Your task to perform on an android device: Open calendar and show me the fourth week of next month Image 0: 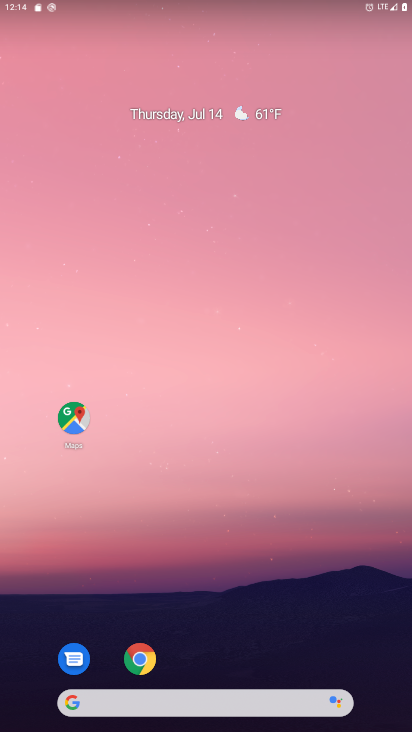
Step 0: drag from (225, 669) to (230, 59)
Your task to perform on an android device: Open calendar and show me the fourth week of next month Image 1: 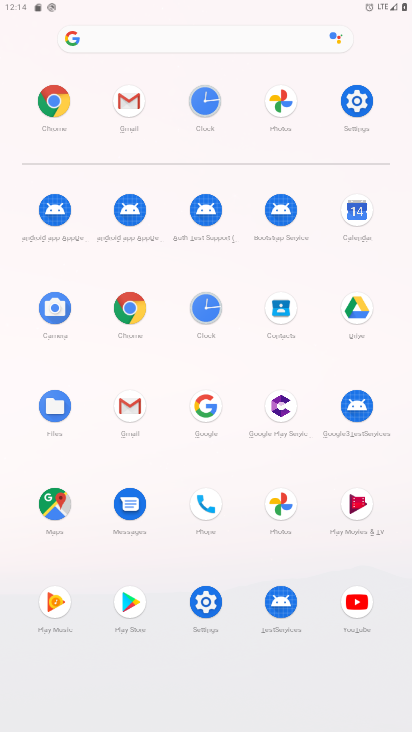
Step 1: click (352, 210)
Your task to perform on an android device: Open calendar and show me the fourth week of next month Image 2: 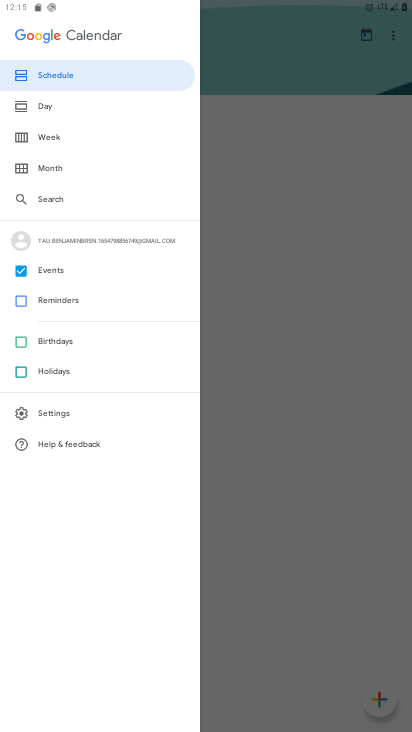
Step 2: click (45, 139)
Your task to perform on an android device: Open calendar and show me the fourth week of next month Image 3: 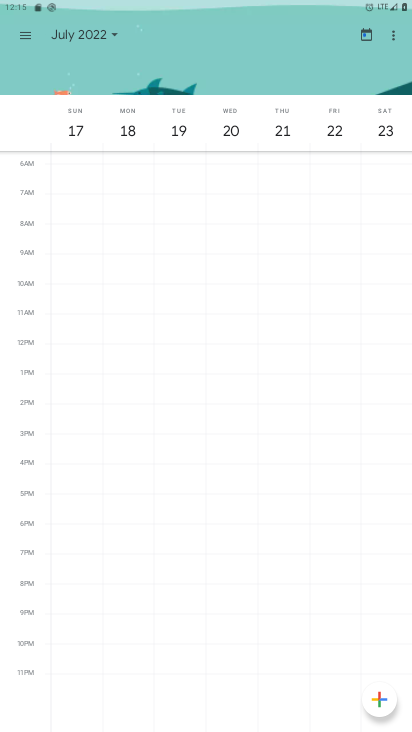
Step 3: click (108, 36)
Your task to perform on an android device: Open calendar and show me the fourth week of next month Image 4: 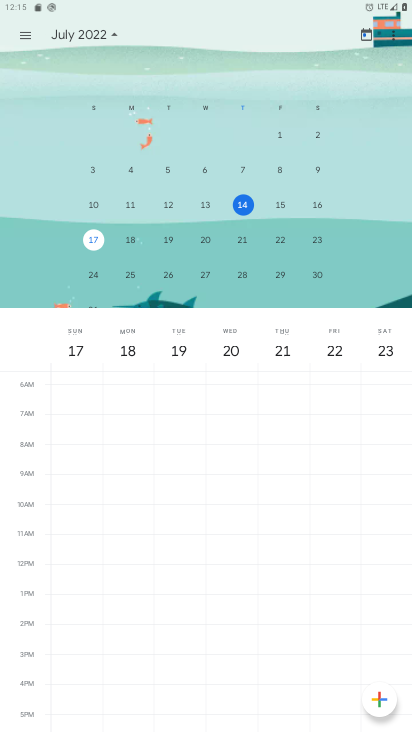
Step 4: drag from (315, 217) to (11, 202)
Your task to perform on an android device: Open calendar and show me the fourth week of next month Image 5: 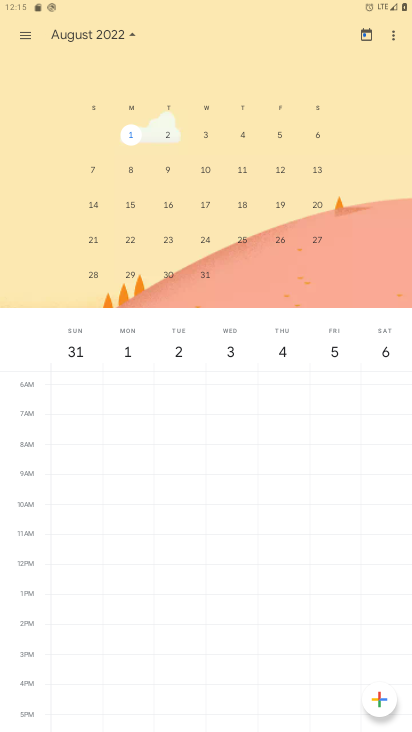
Step 5: click (93, 238)
Your task to perform on an android device: Open calendar and show me the fourth week of next month Image 6: 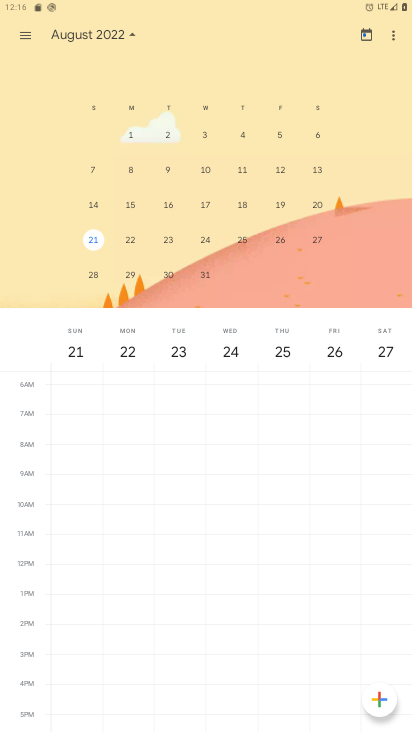
Step 6: task complete